Your task to perform on an android device: Is it going to rain this weekend? Image 0: 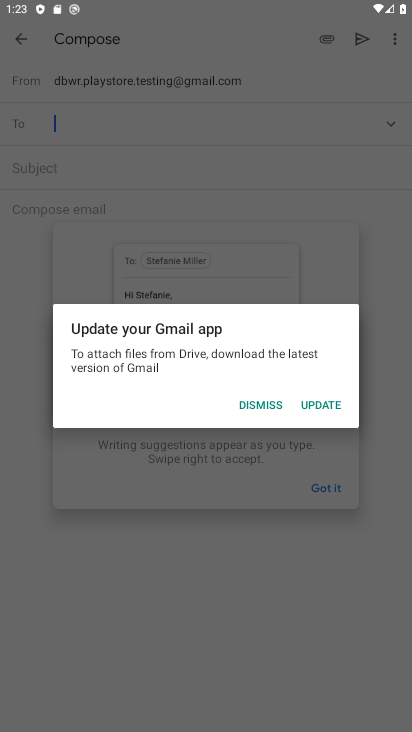
Step 0: press back button
Your task to perform on an android device: Is it going to rain this weekend? Image 1: 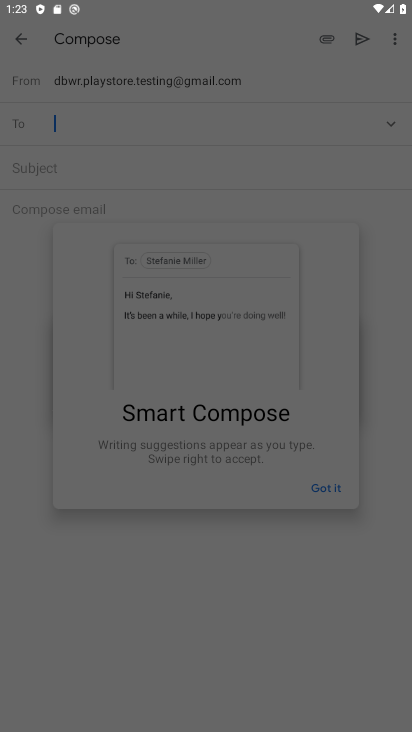
Step 1: press back button
Your task to perform on an android device: Is it going to rain this weekend? Image 2: 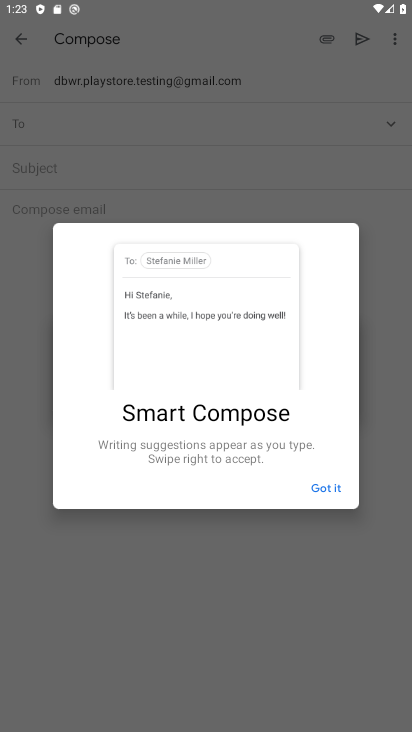
Step 2: press back button
Your task to perform on an android device: Is it going to rain this weekend? Image 3: 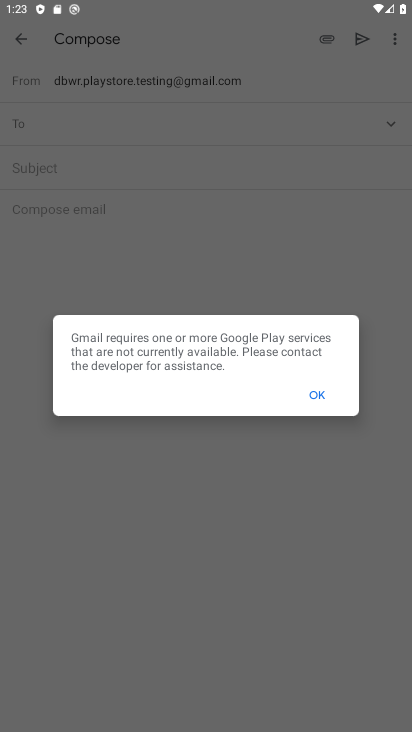
Step 3: press back button
Your task to perform on an android device: Is it going to rain this weekend? Image 4: 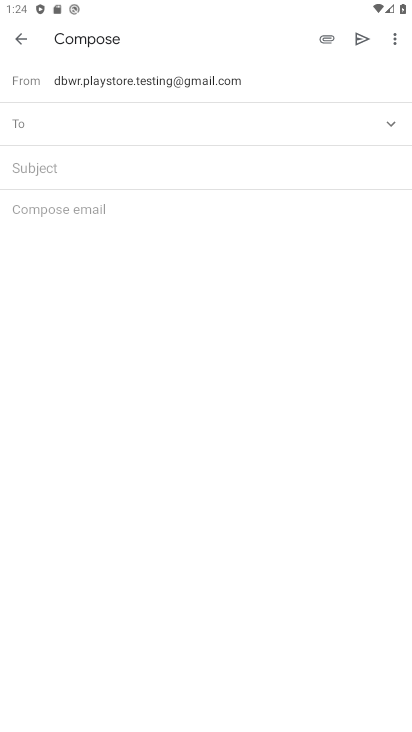
Step 4: press back button
Your task to perform on an android device: Is it going to rain this weekend? Image 5: 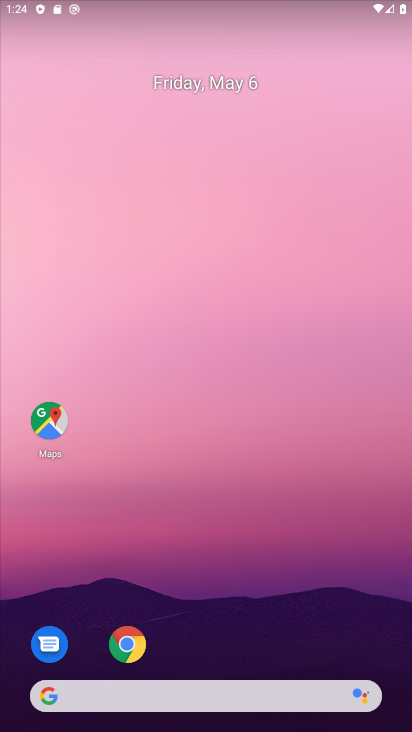
Step 5: click (200, 693)
Your task to perform on an android device: Is it going to rain this weekend? Image 6: 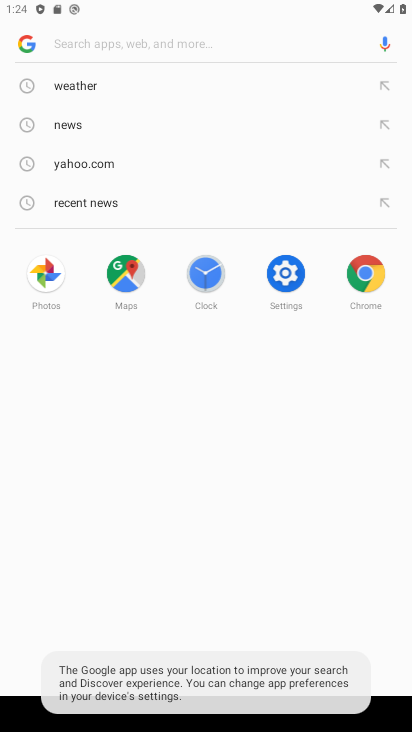
Step 6: click (89, 84)
Your task to perform on an android device: Is it going to rain this weekend? Image 7: 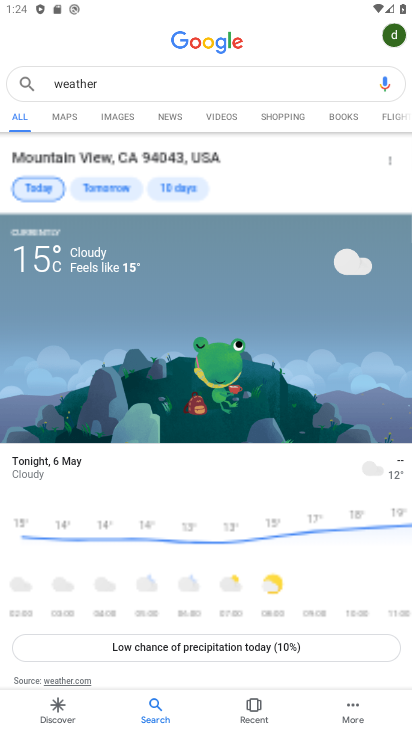
Step 7: click (187, 185)
Your task to perform on an android device: Is it going to rain this weekend? Image 8: 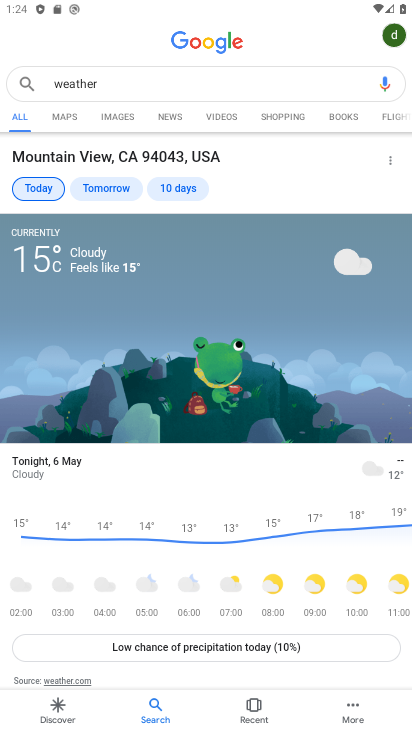
Step 8: click (187, 187)
Your task to perform on an android device: Is it going to rain this weekend? Image 9: 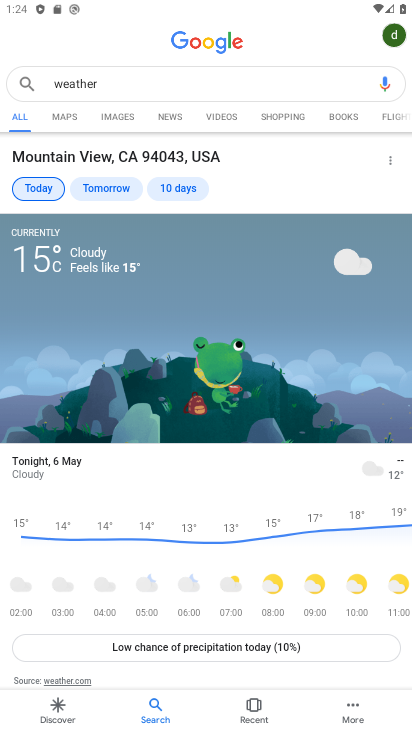
Step 9: click (181, 188)
Your task to perform on an android device: Is it going to rain this weekend? Image 10: 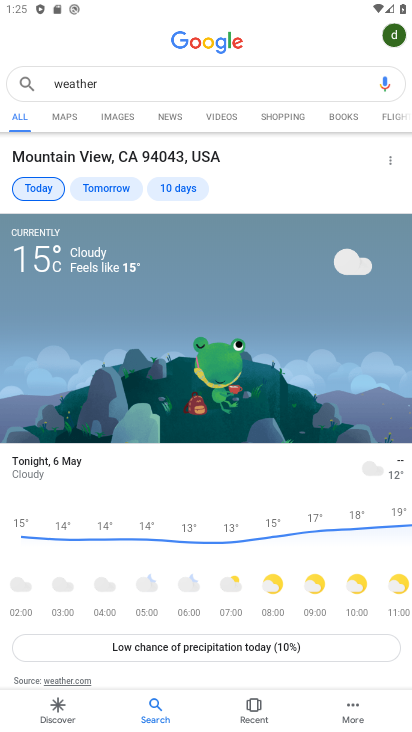
Step 10: click (188, 198)
Your task to perform on an android device: Is it going to rain this weekend? Image 11: 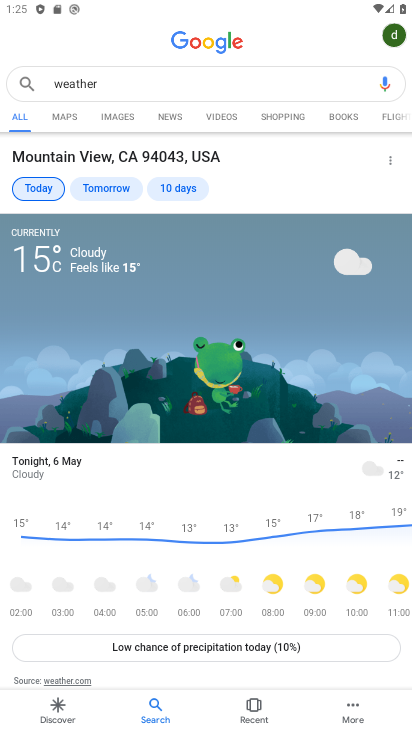
Step 11: click (186, 182)
Your task to perform on an android device: Is it going to rain this weekend? Image 12: 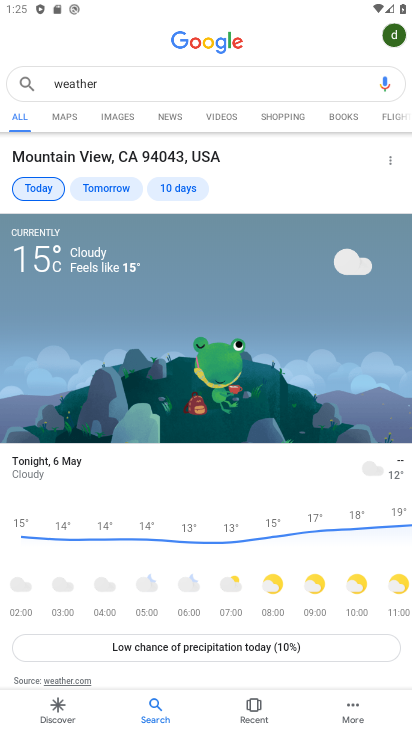
Step 12: task complete